Your task to perform on an android device: add a label to a message in the gmail app Image 0: 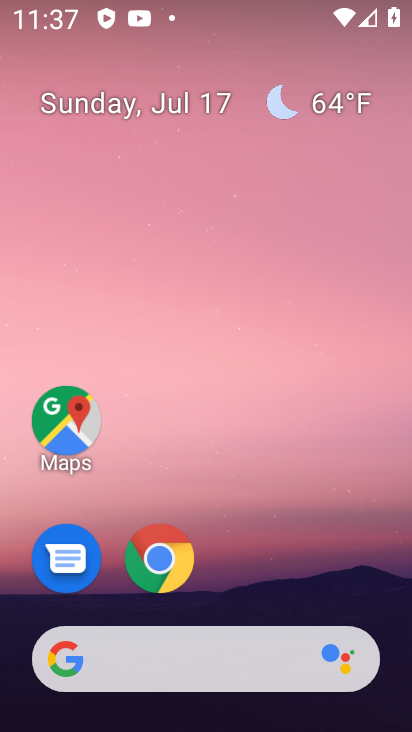
Step 0: drag from (370, 574) to (358, 114)
Your task to perform on an android device: add a label to a message in the gmail app Image 1: 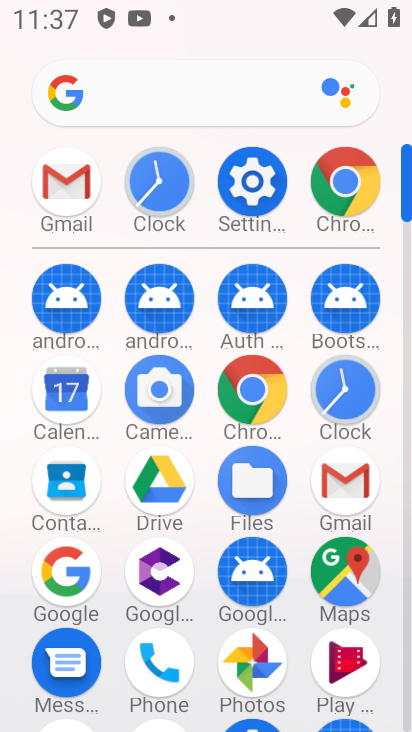
Step 1: click (351, 490)
Your task to perform on an android device: add a label to a message in the gmail app Image 2: 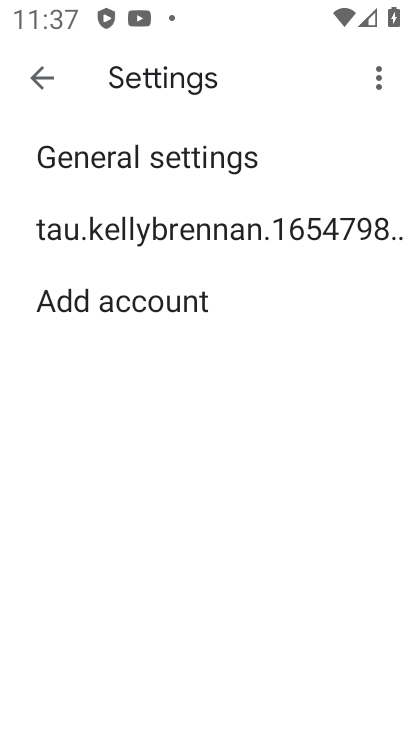
Step 2: press back button
Your task to perform on an android device: add a label to a message in the gmail app Image 3: 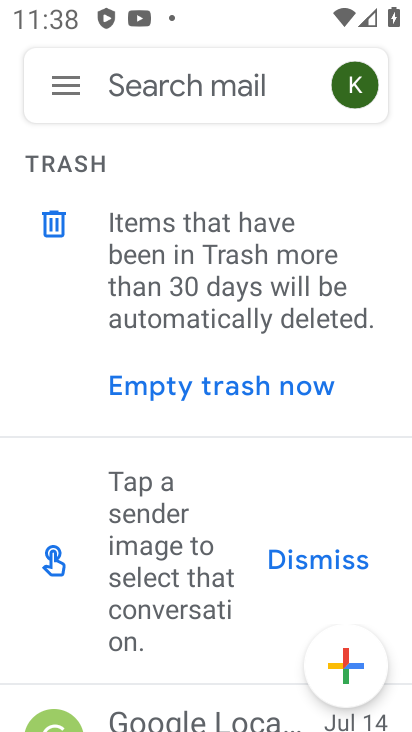
Step 3: press back button
Your task to perform on an android device: add a label to a message in the gmail app Image 4: 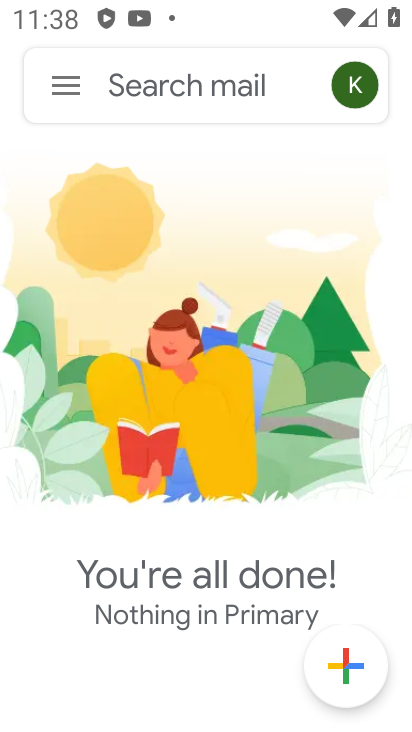
Step 4: click (69, 87)
Your task to perform on an android device: add a label to a message in the gmail app Image 5: 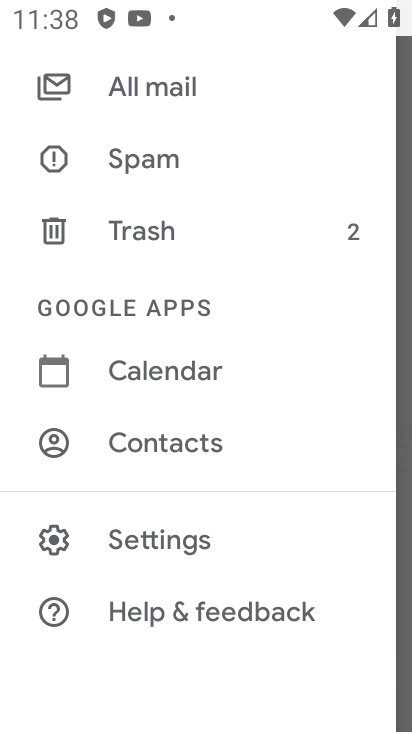
Step 5: drag from (271, 254) to (269, 430)
Your task to perform on an android device: add a label to a message in the gmail app Image 6: 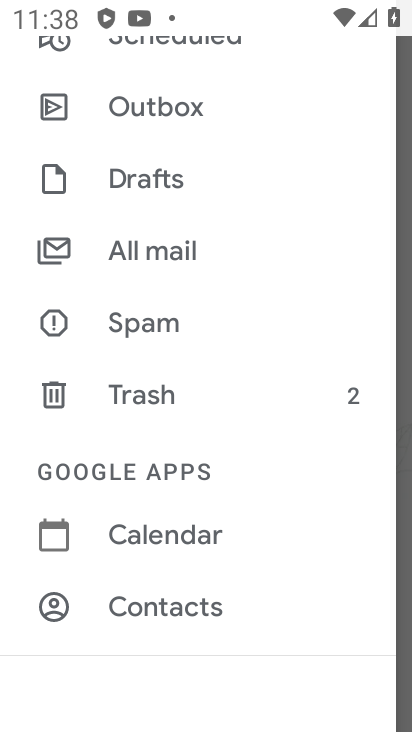
Step 6: click (193, 254)
Your task to perform on an android device: add a label to a message in the gmail app Image 7: 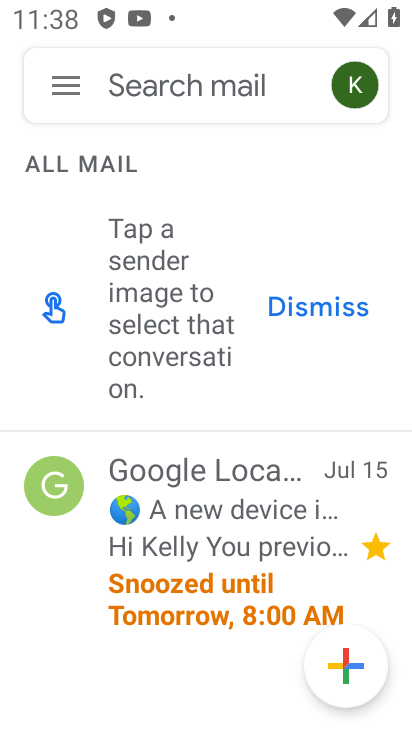
Step 7: click (213, 522)
Your task to perform on an android device: add a label to a message in the gmail app Image 8: 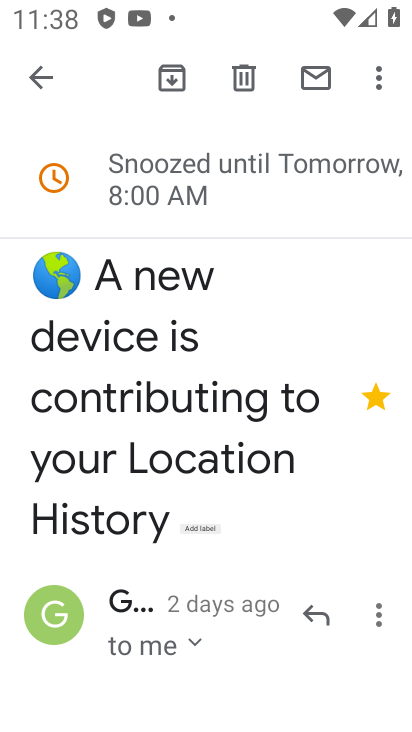
Step 8: drag from (289, 498) to (289, 389)
Your task to perform on an android device: add a label to a message in the gmail app Image 9: 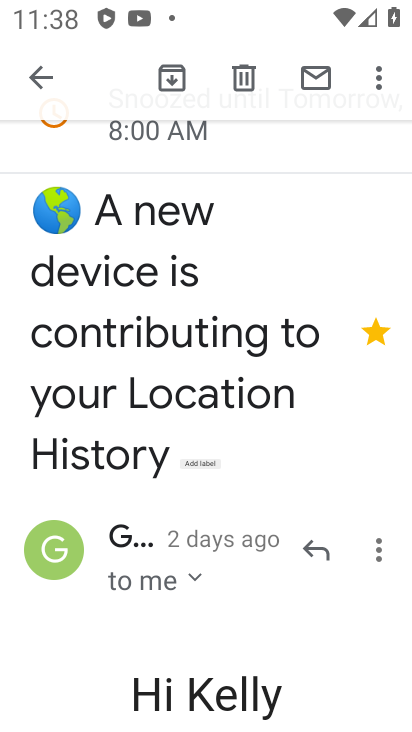
Step 9: drag from (270, 251) to (279, 466)
Your task to perform on an android device: add a label to a message in the gmail app Image 10: 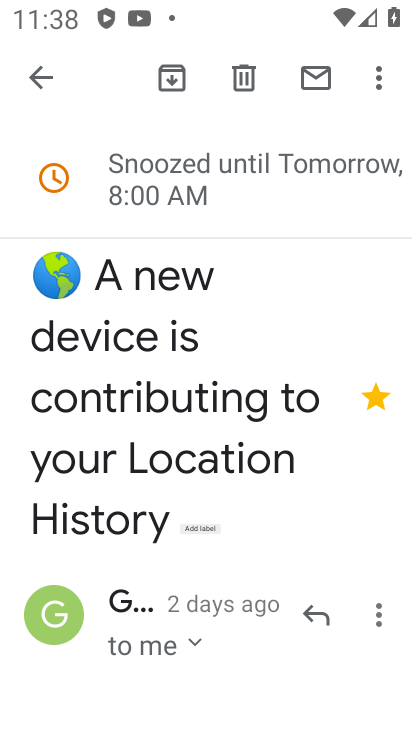
Step 10: drag from (328, 458) to (120, 425)
Your task to perform on an android device: add a label to a message in the gmail app Image 11: 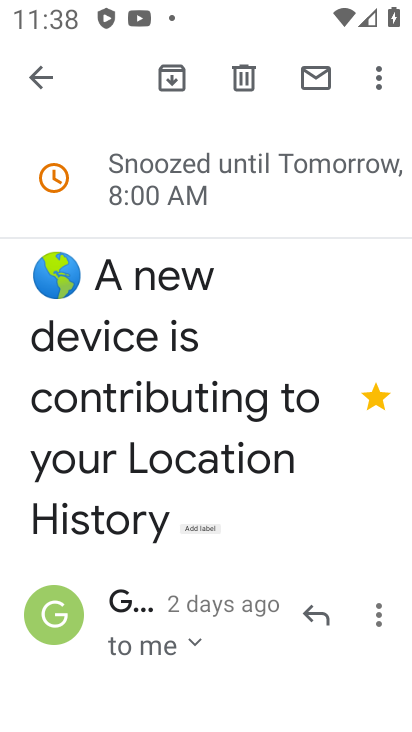
Step 11: drag from (249, 479) to (242, 337)
Your task to perform on an android device: add a label to a message in the gmail app Image 12: 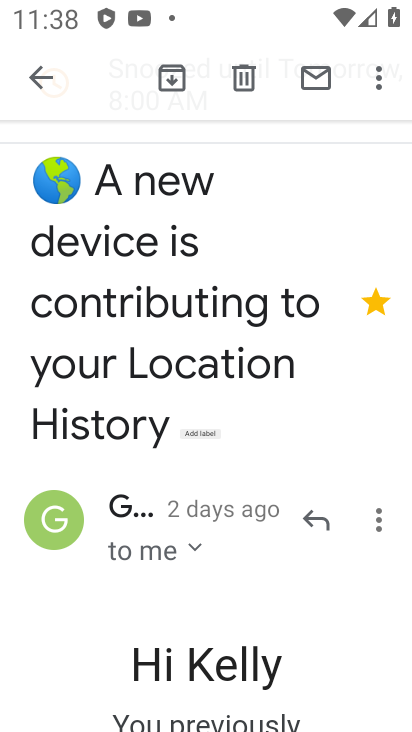
Step 12: click (197, 544)
Your task to perform on an android device: add a label to a message in the gmail app Image 13: 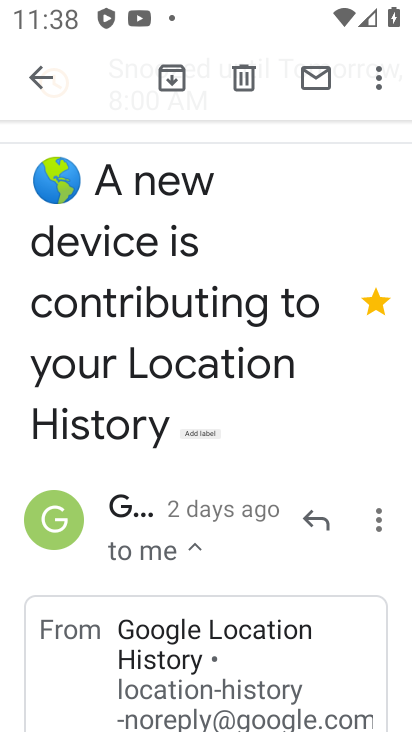
Step 13: click (207, 428)
Your task to perform on an android device: add a label to a message in the gmail app Image 14: 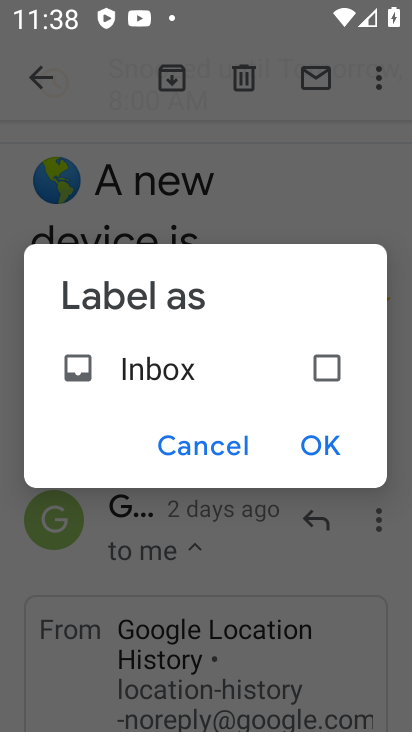
Step 14: click (324, 364)
Your task to perform on an android device: add a label to a message in the gmail app Image 15: 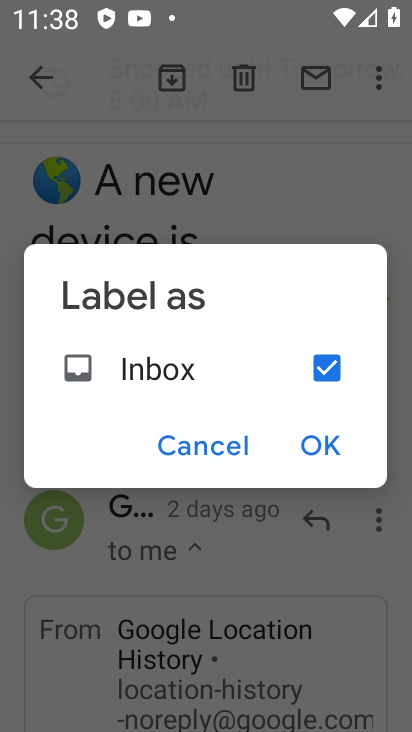
Step 15: click (324, 440)
Your task to perform on an android device: add a label to a message in the gmail app Image 16: 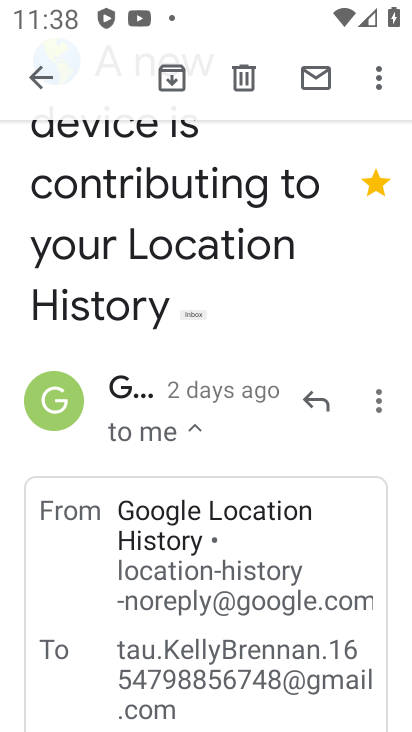
Step 16: task complete